Your task to perform on an android device: Open maps Image 0: 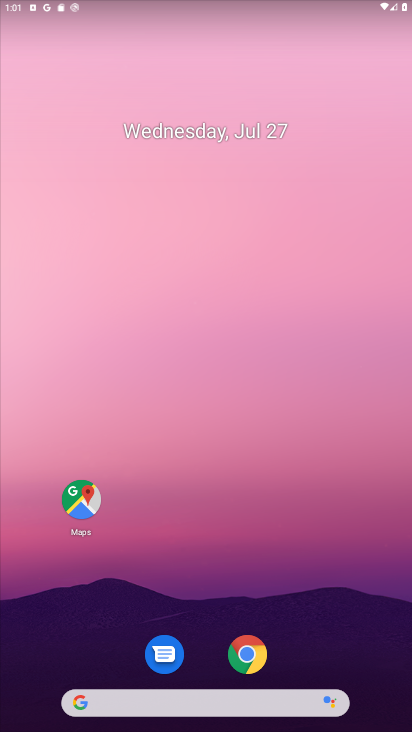
Step 0: drag from (203, 689) to (233, 28)
Your task to perform on an android device: Open maps Image 1: 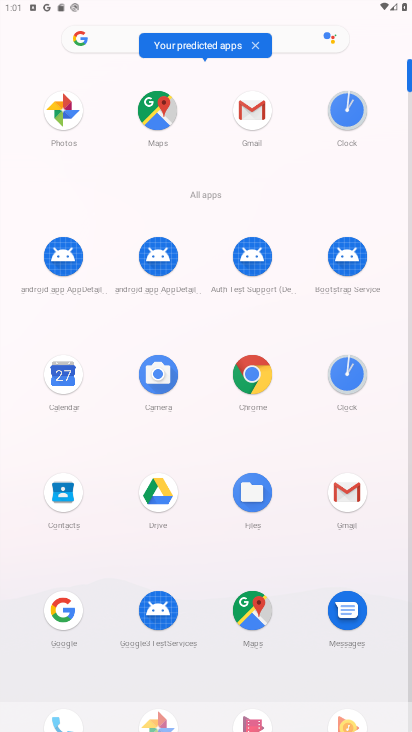
Step 1: click (258, 624)
Your task to perform on an android device: Open maps Image 2: 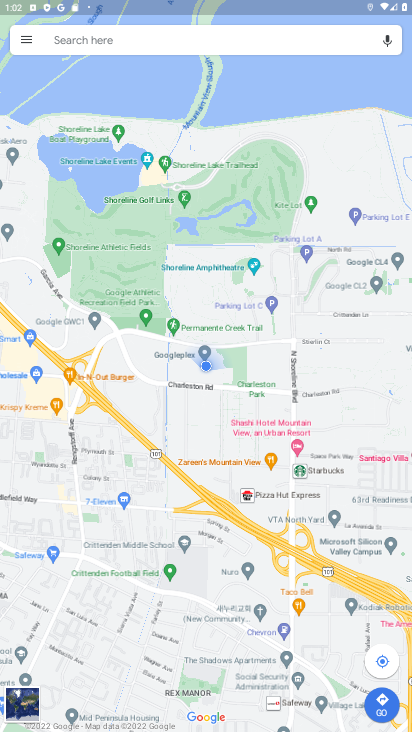
Step 2: task complete